Your task to perform on an android device: Go to notification settings Image 0: 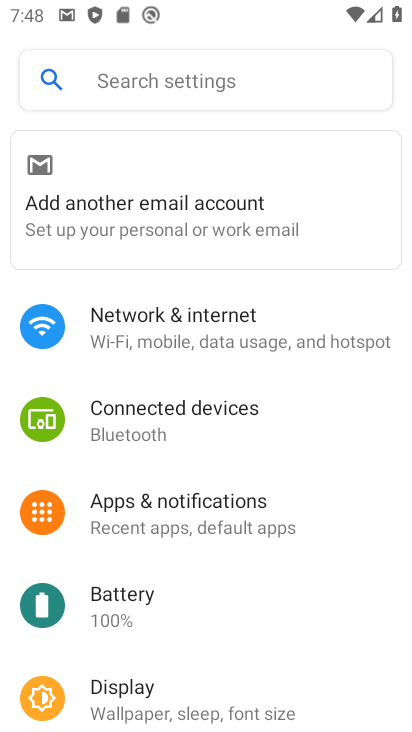
Step 0: press home button
Your task to perform on an android device: Go to notification settings Image 1: 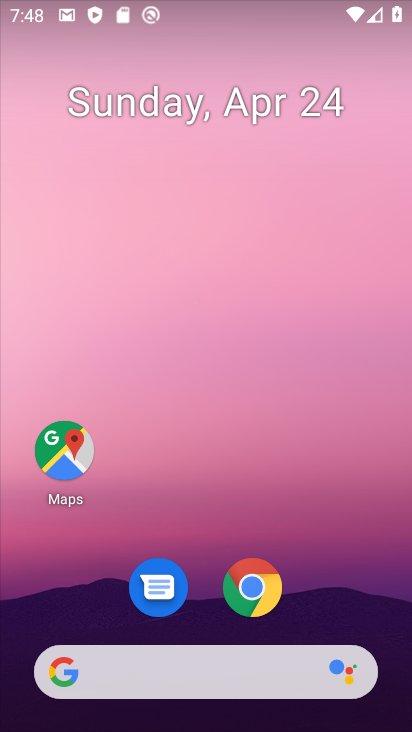
Step 1: drag from (361, 552) to (335, 112)
Your task to perform on an android device: Go to notification settings Image 2: 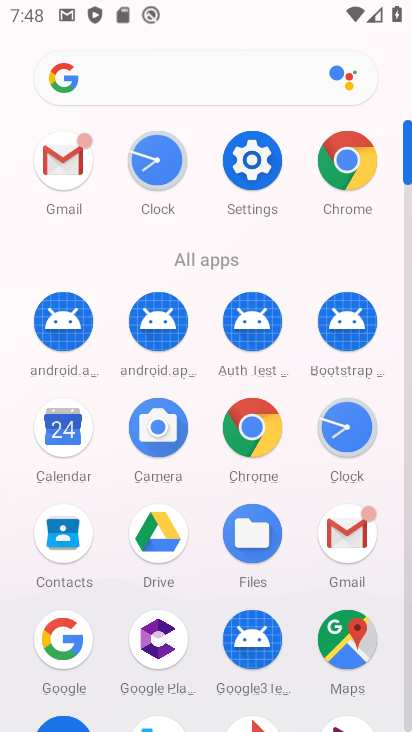
Step 2: click (252, 144)
Your task to perform on an android device: Go to notification settings Image 3: 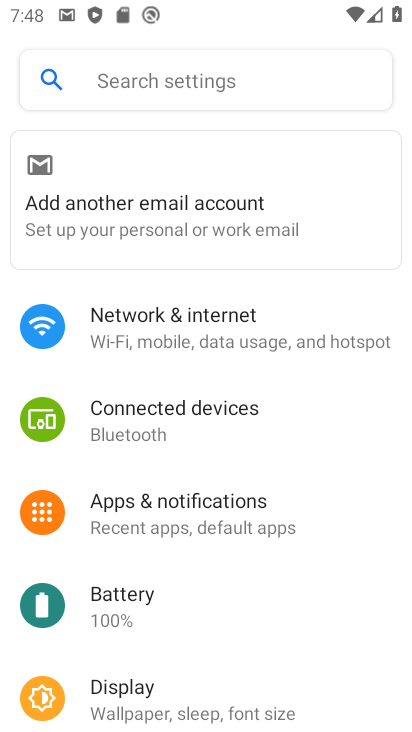
Step 3: click (188, 526)
Your task to perform on an android device: Go to notification settings Image 4: 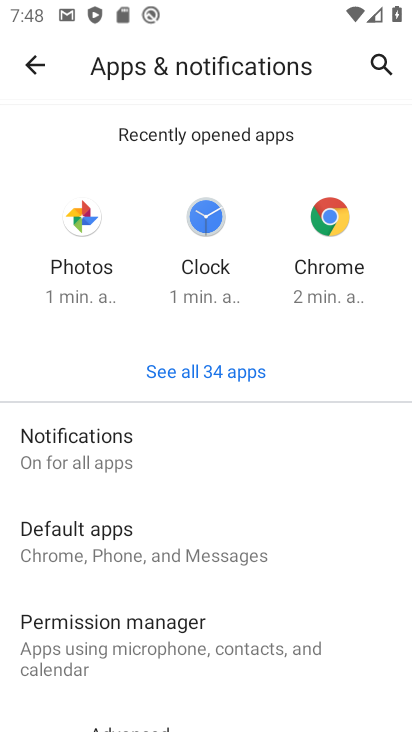
Step 4: click (106, 456)
Your task to perform on an android device: Go to notification settings Image 5: 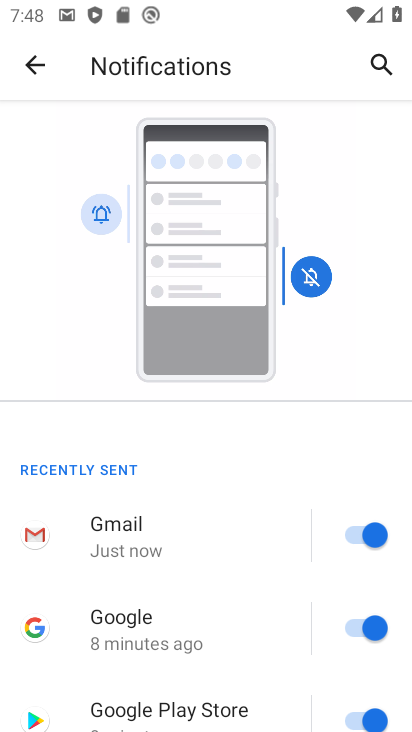
Step 5: task complete